Your task to perform on an android device: turn pop-ups off in chrome Image 0: 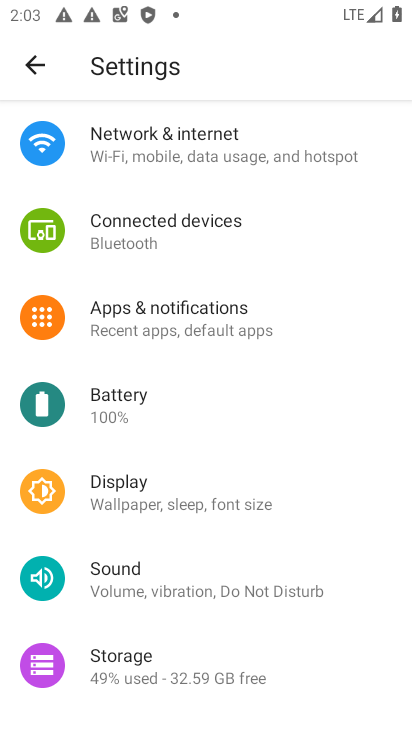
Step 0: press back button
Your task to perform on an android device: turn pop-ups off in chrome Image 1: 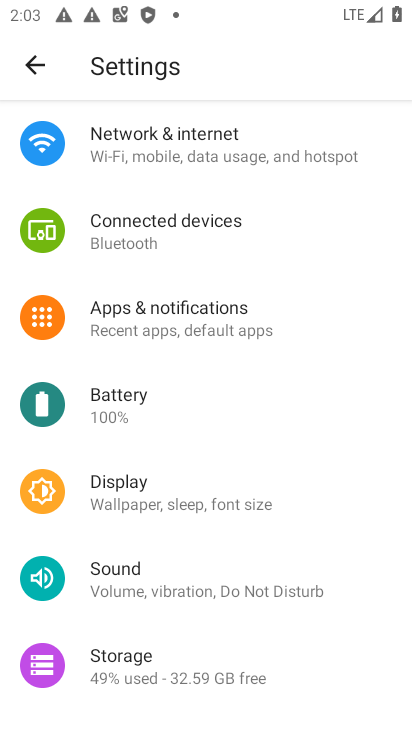
Step 1: press back button
Your task to perform on an android device: turn pop-ups off in chrome Image 2: 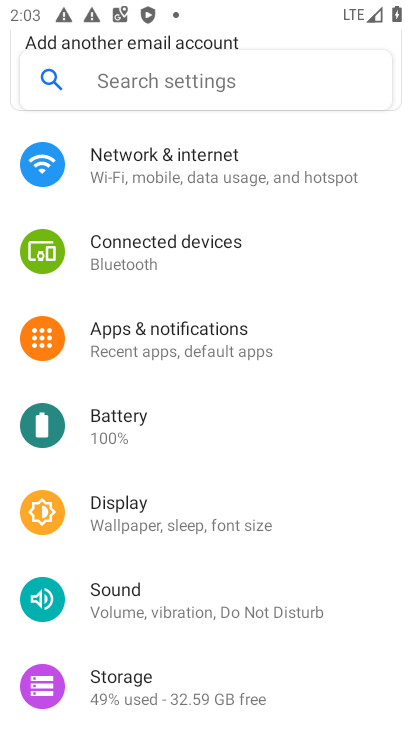
Step 2: press back button
Your task to perform on an android device: turn pop-ups off in chrome Image 3: 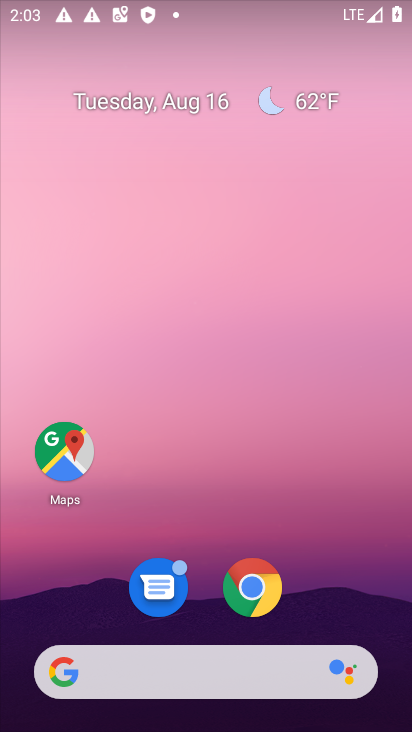
Step 3: click (263, 592)
Your task to perform on an android device: turn pop-ups off in chrome Image 4: 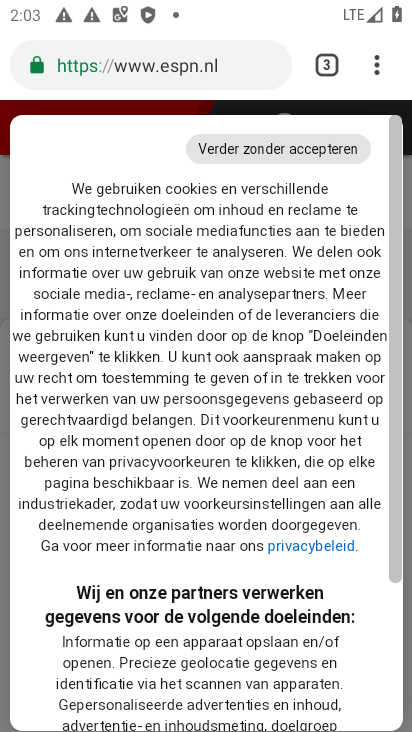
Step 4: drag from (375, 64) to (182, 624)
Your task to perform on an android device: turn pop-ups off in chrome Image 5: 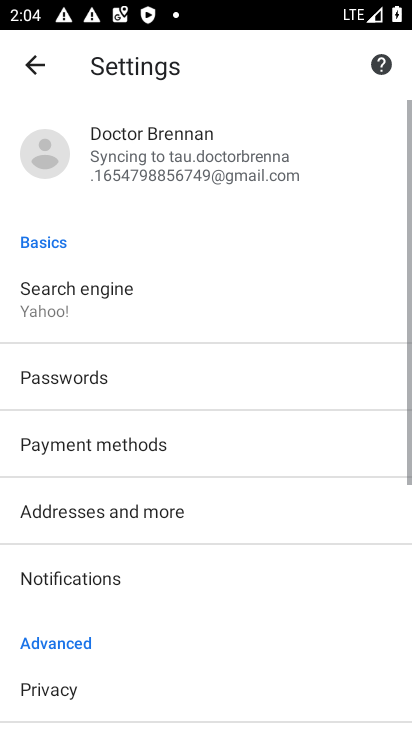
Step 5: drag from (118, 670) to (147, 353)
Your task to perform on an android device: turn pop-ups off in chrome Image 6: 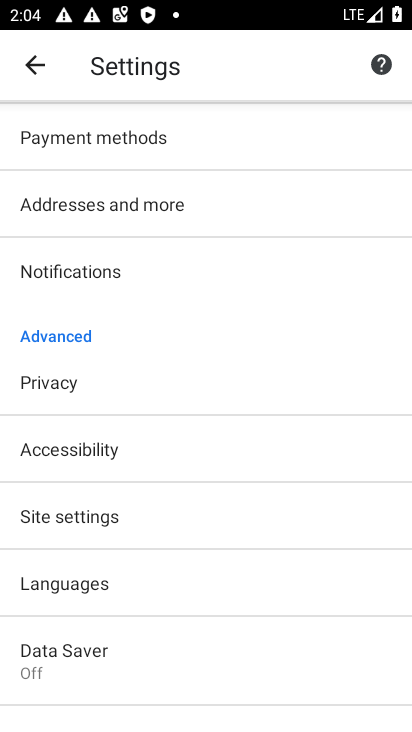
Step 6: click (92, 516)
Your task to perform on an android device: turn pop-ups off in chrome Image 7: 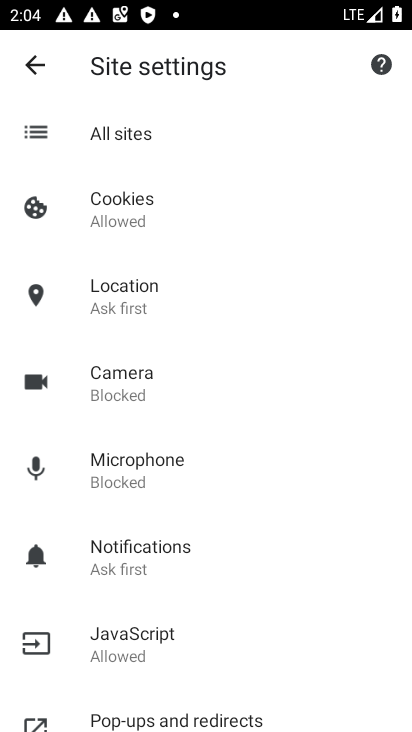
Step 7: click (178, 713)
Your task to perform on an android device: turn pop-ups off in chrome Image 8: 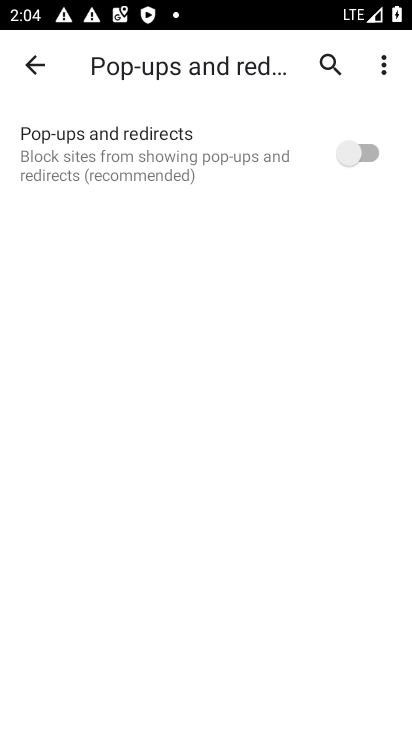
Step 8: task complete